Your task to perform on an android device: install app "Yahoo Mail" Image 0: 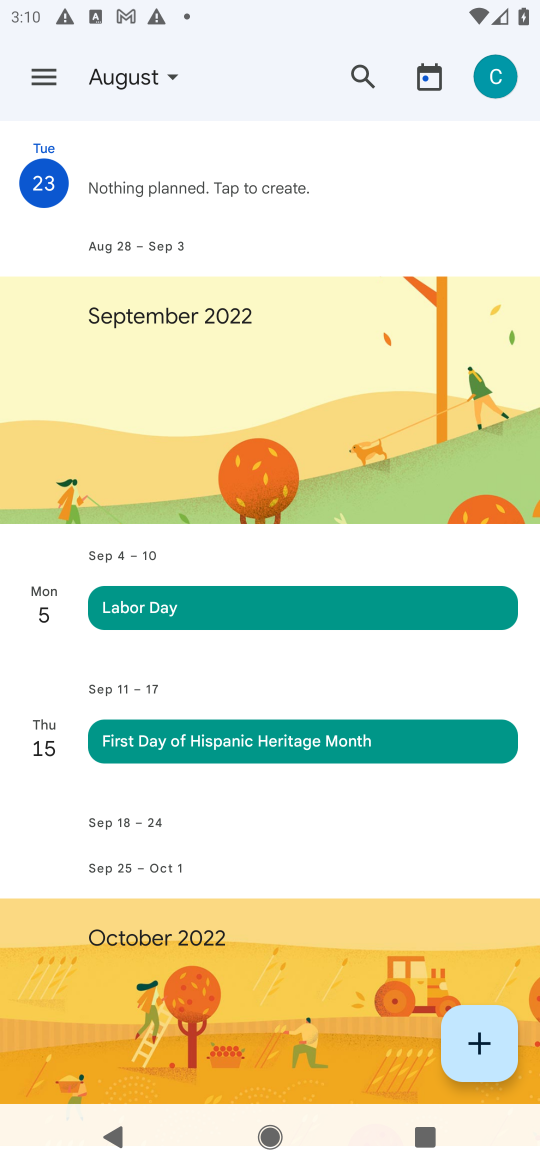
Step 0: press home button
Your task to perform on an android device: install app "Yahoo Mail" Image 1: 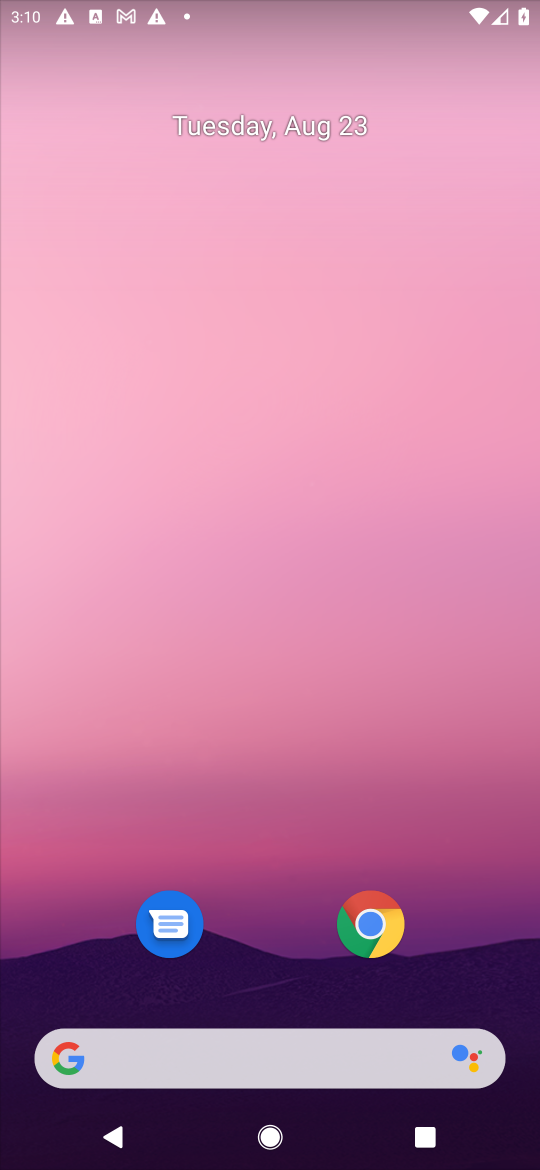
Step 1: drag from (466, 927) to (444, 138)
Your task to perform on an android device: install app "Yahoo Mail" Image 2: 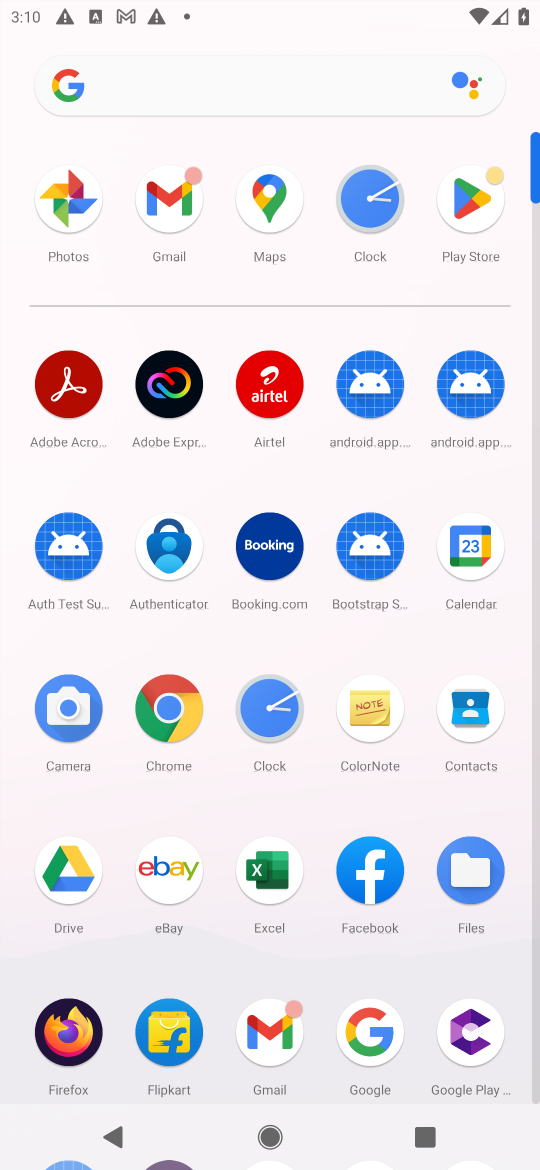
Step 2: click (471, 201)
Your task to perform on an android device: install app "Yahoo Mail" Image 3: 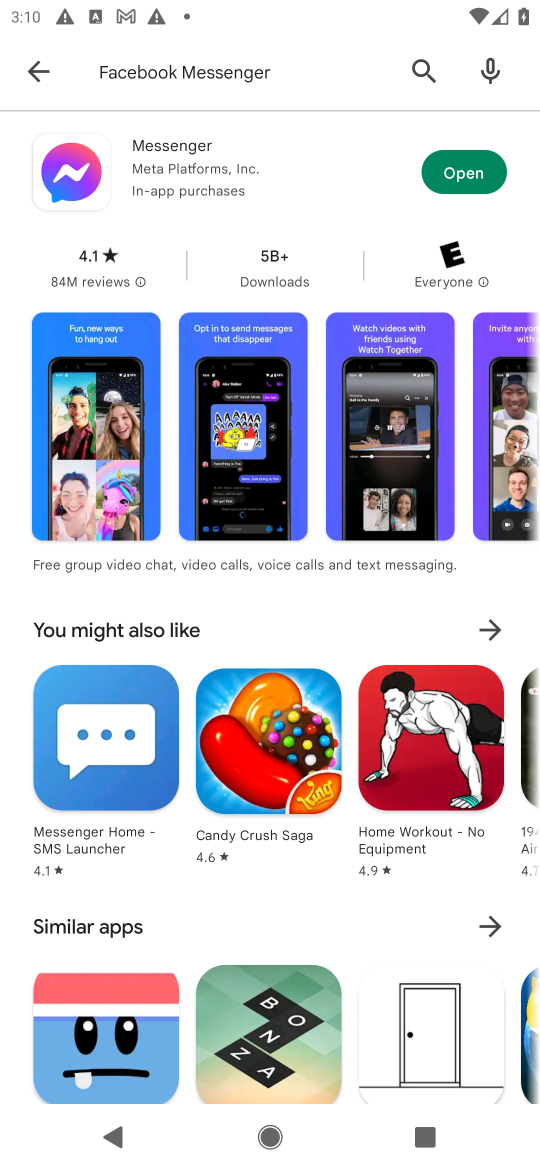
Step 3: press back button
Your task to perform on an android device: install app "Yahoo Mail" Image 4: 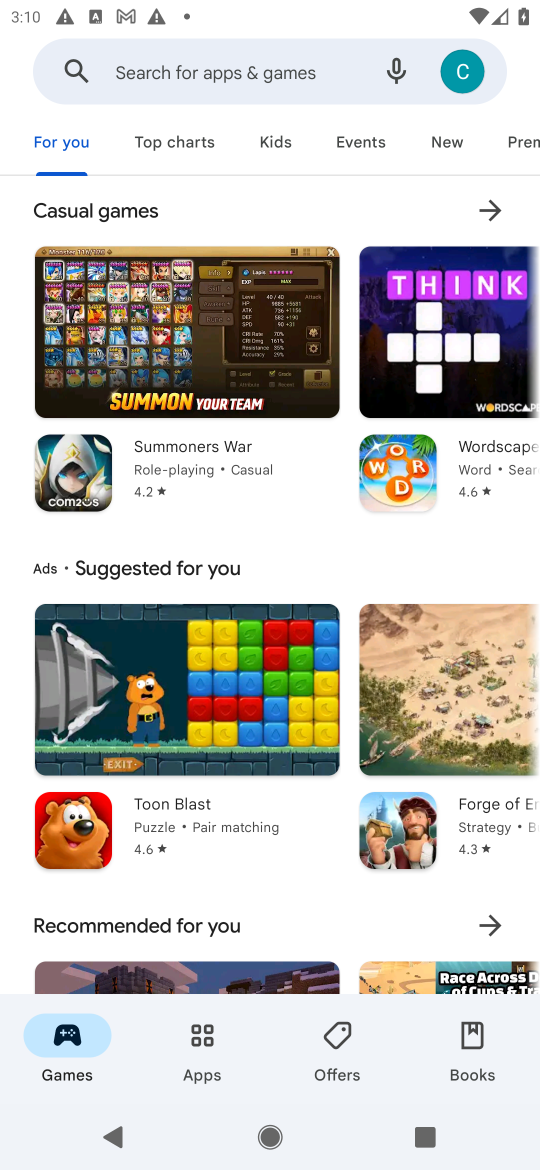
Step 4: click (285, 65)
Your task to perform on an android device: install app "Yahoo Mail" Image 5: 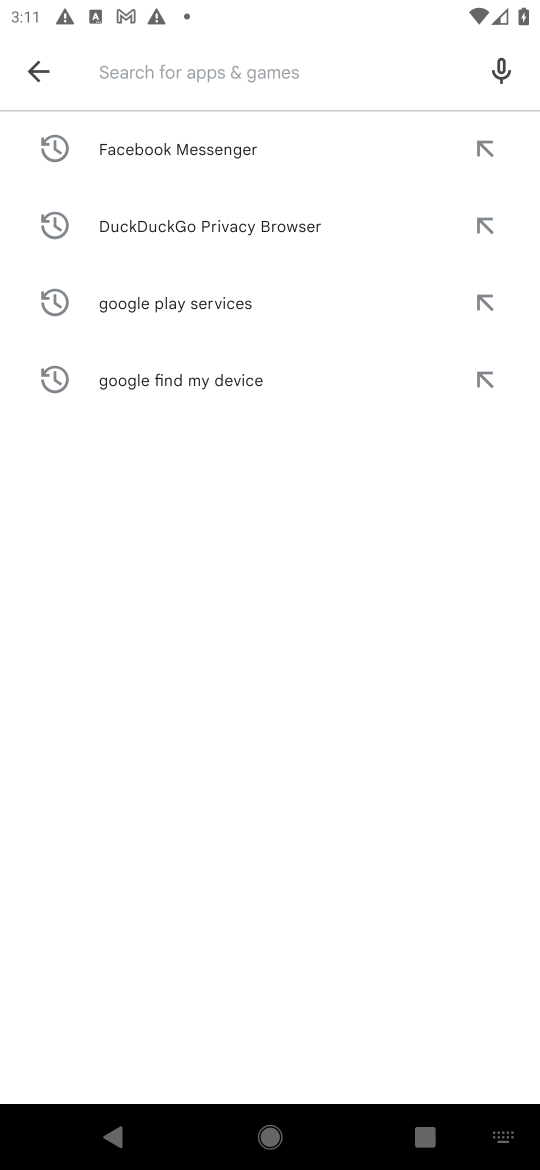
Step 5: type "yahoo mail"
Your task to perform on an android device: install app "Yahoo Mail" Image 6: 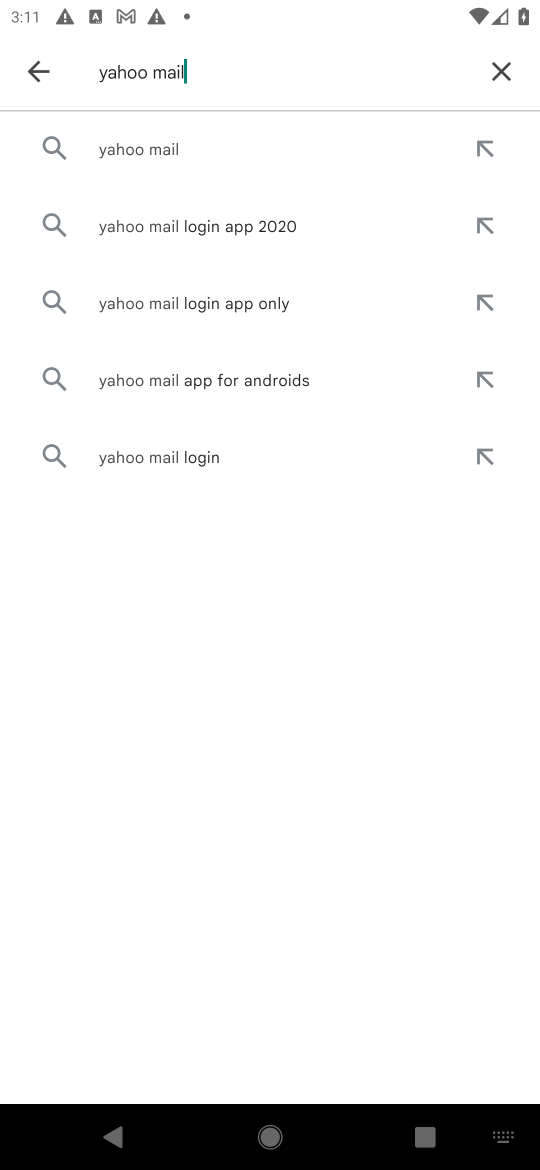
Step 6: press enter
Your task to perform on an android device: install app "Yahoo Mail" Image 7: 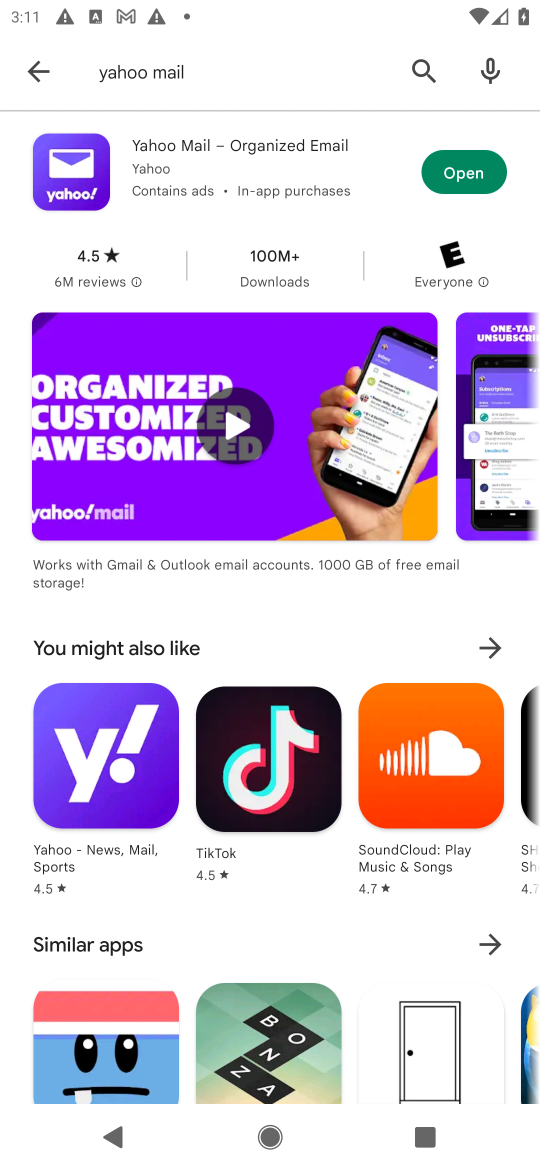
Step 7: task complete